Your task to perform on an android device: Go to notification settings Image 0: 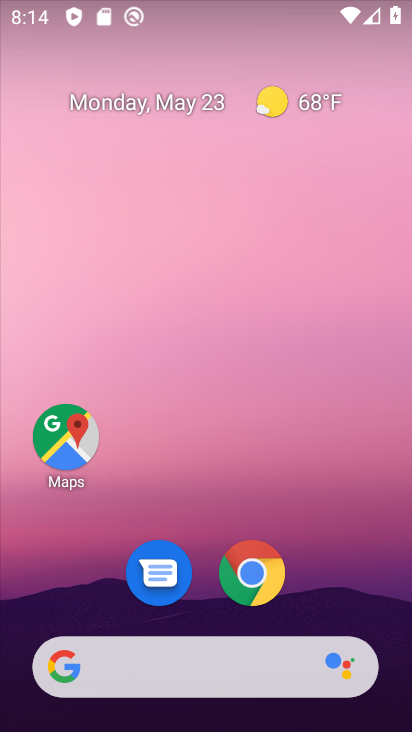
Step 0: drag from (211, 610) to (222, 5)
Your task to perform on an android device: Go to notification settings Image 1: 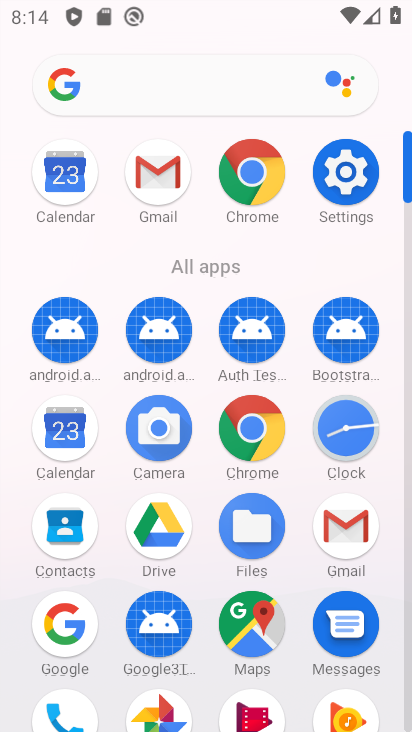
Step 1: click (356, 169)
Your task to perform on an android device: Go to notification settings Image 2: 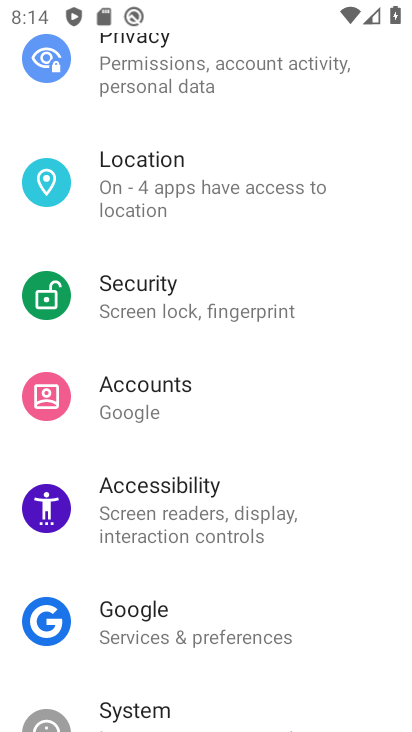
Step 2: drag from (197, 129) to (208, 730)
Your task to perform on an android device: Go to notification settings Image 3: 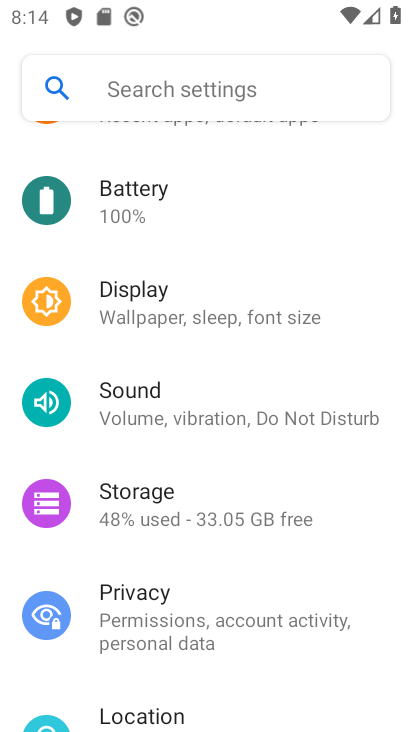
Step 3: drag from (209, 204) to (216, 729)
Your task to perform on an android device: Go to notification settings Image 4: 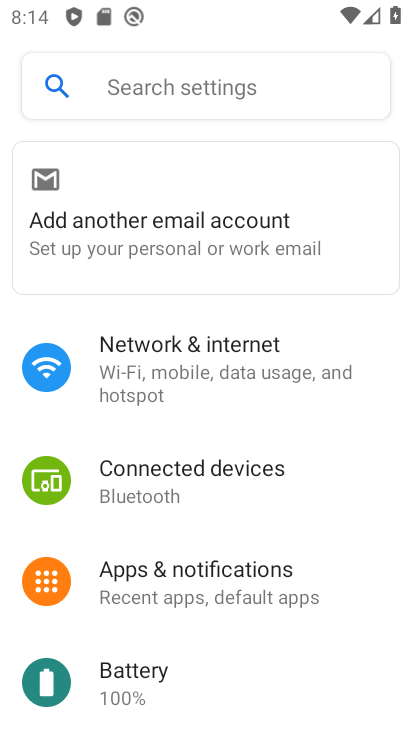
Step 4: click (295, 585)
Your task to perform on an android device: Go to notification settings Image 5: 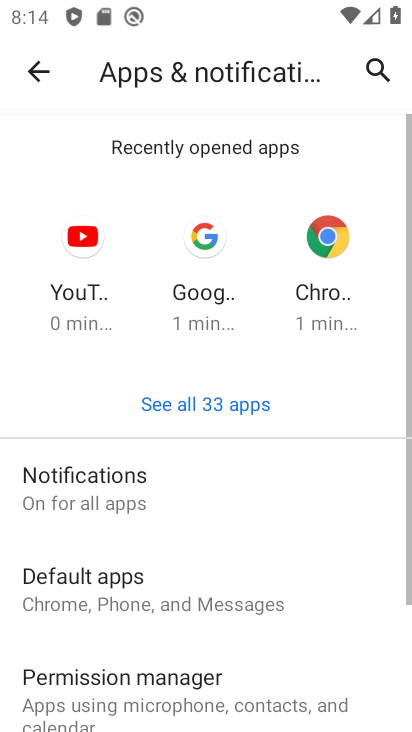
Step 5: click (157, 479)
Your task to perform on an android device: Go to notification settings Image 6: 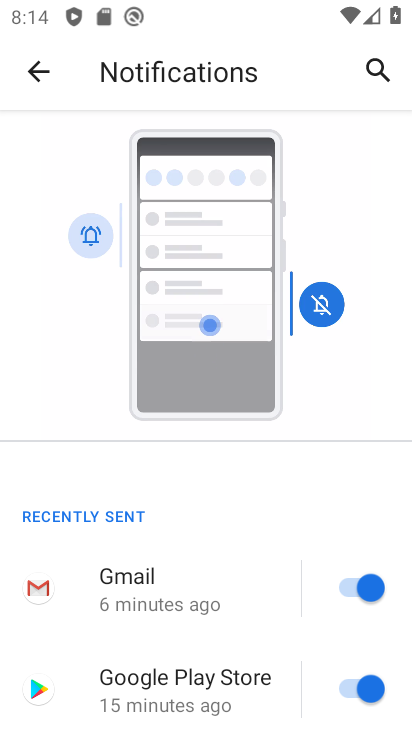
Step 6: click (323, 589)
Your task to perform on an android device: Go to notification settings Image 7: 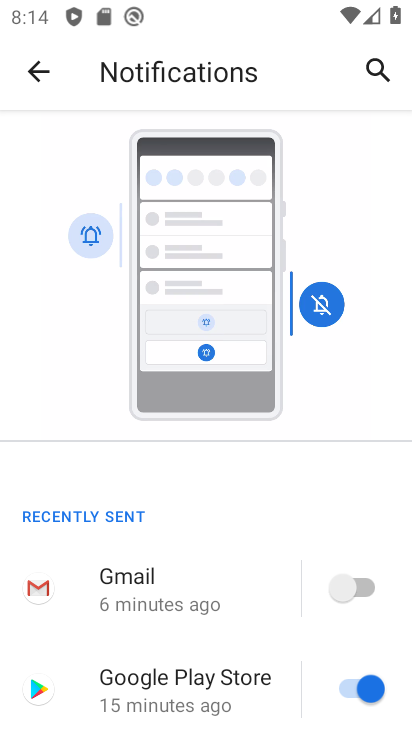
Step 7: drag from (207, 654) to (248, 134)
Your task to perform on an android device: Go to notification settings Image 8: 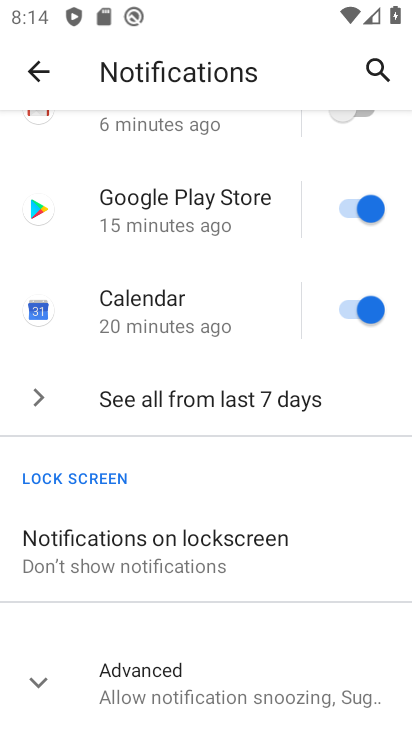
Step 8: click (62, 703)
Your task to perform on an android device: Go to notification settings Image 9: 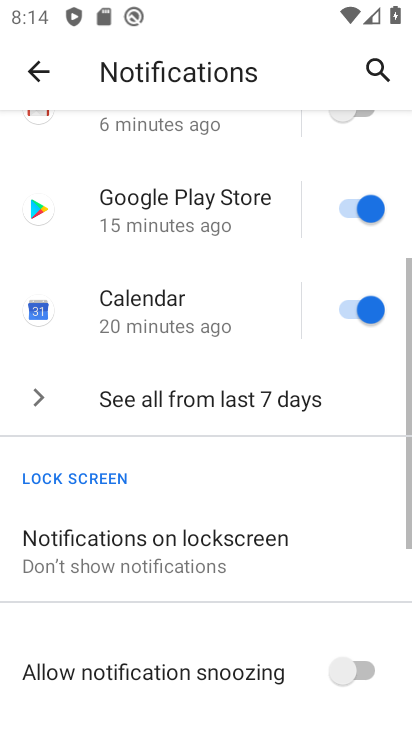
Step 9: click (373, 311)
Your task to perform on an android device: Go to notification settings Image 10: 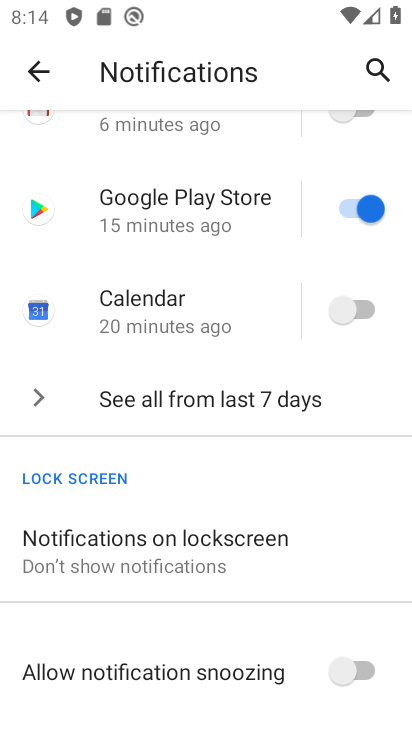
Step 10: drag from (228, 601) to (235, 111)
Your task to perform on an android device: Go to notification settings Image 11: 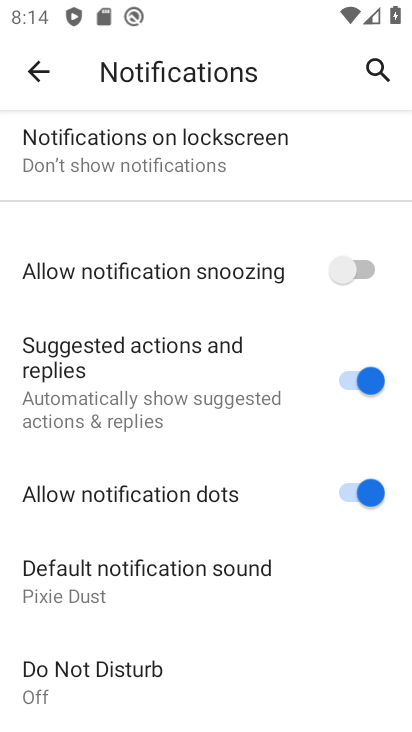
Step 11: click (337, 488)
Your task to perform on an android device: Go to notification settings Image 12: 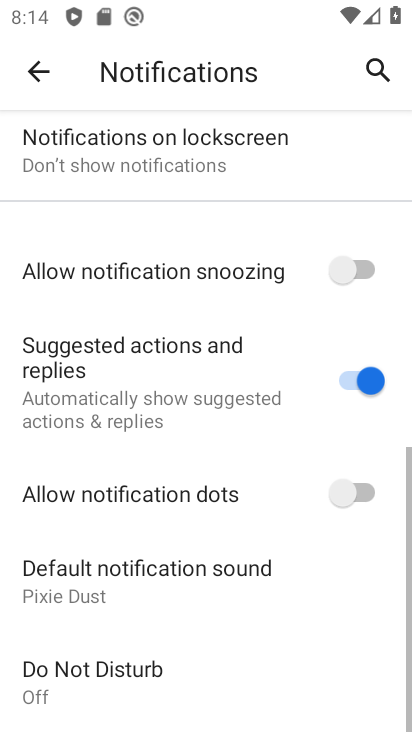
Step 12: task complete